Your task to perform on an android device: Go to Reddit.com Image 0: 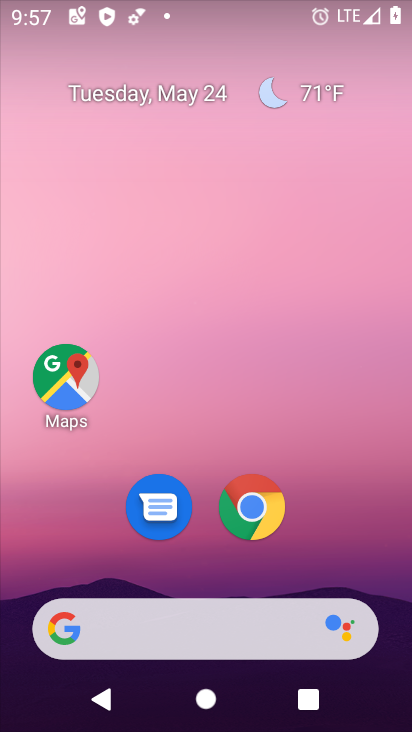
Step 0: click (248, 513)
Your task to perform on an android device: Go to Reddit.com Image 1: 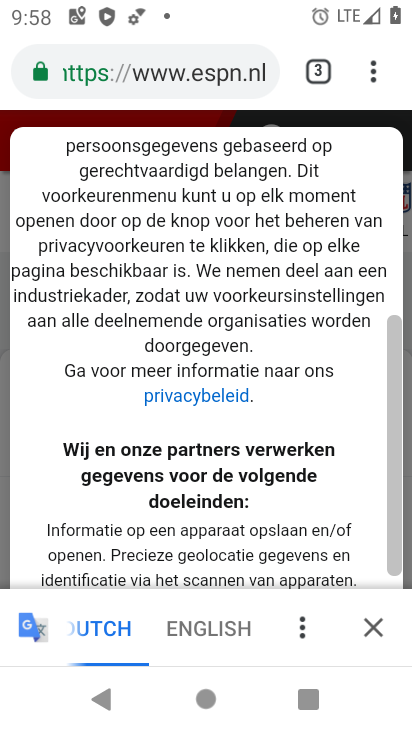
Step 1: drag from (319, 534) to (316, 194)
Your task to perform on an android device: Go to Reddit.com Image 2: 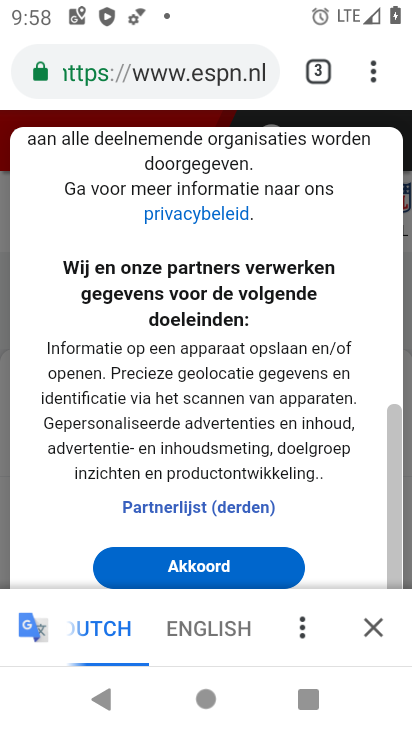
Step 2: click (208, 562)
Your task to perform on an android device: Go to Reddit.com Image 3: 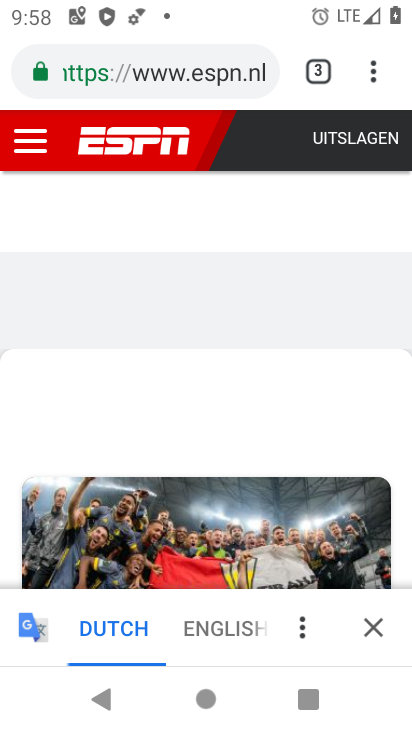
Step 3: click (372, 78)
Your task to perform on an android device: Go to Reddit.com Image 4: 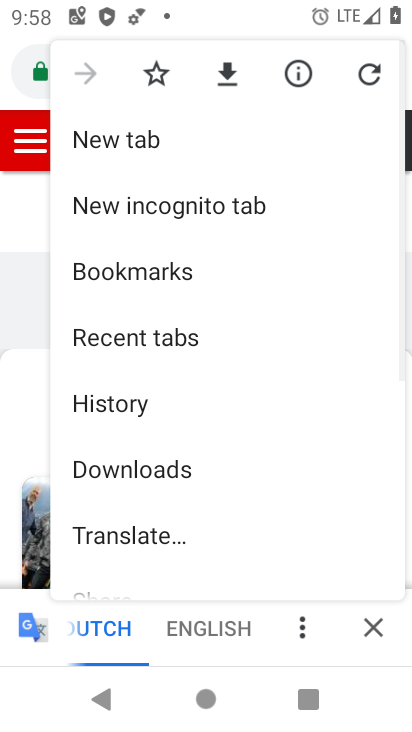
Step 4: click (122, 145)
Your task to perform on an android device: Go to Reddit.com Image 5: 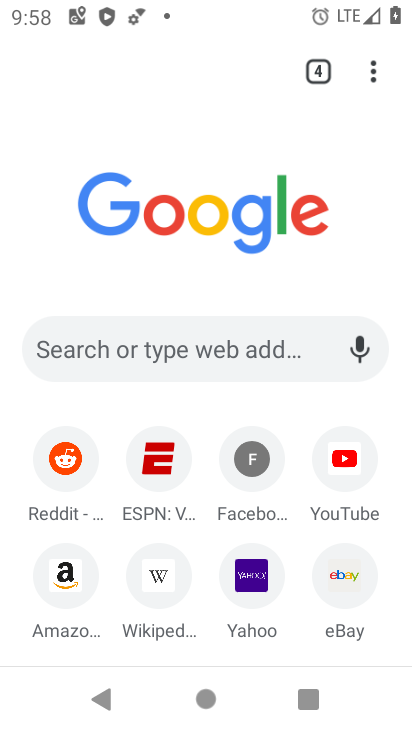
Step 5: click (61, 469)
Your task to perform on an android device: Go to Reddit.com Image 6: 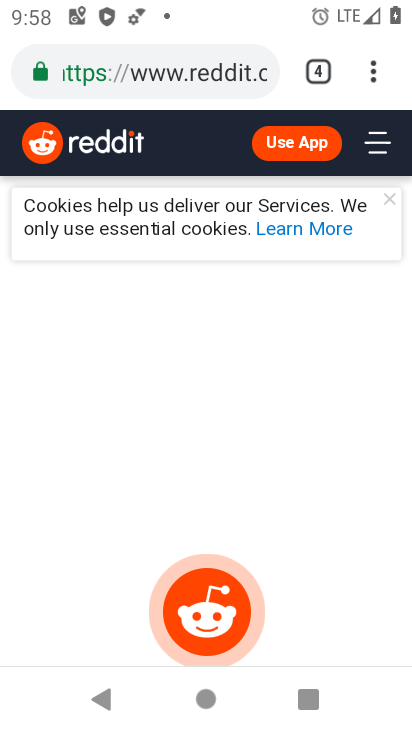
Step 6: task complete